Your task to perform on an android device: manage bookmarks in the chrome app Image 0: 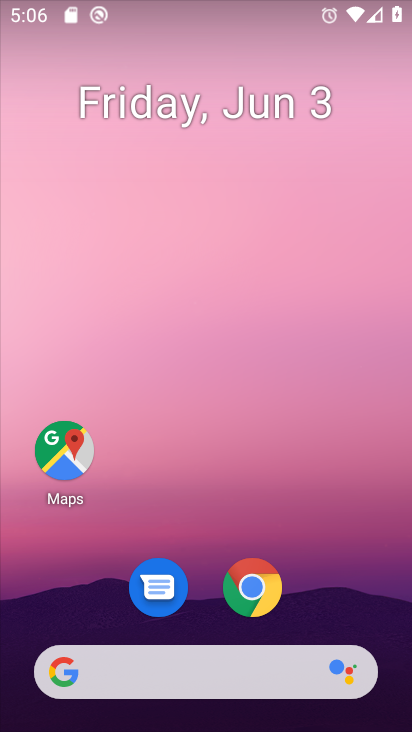
Step 0: click (252, 593)
Your task to perform on an android device: manage bookmarks in the chrome app Image 1: 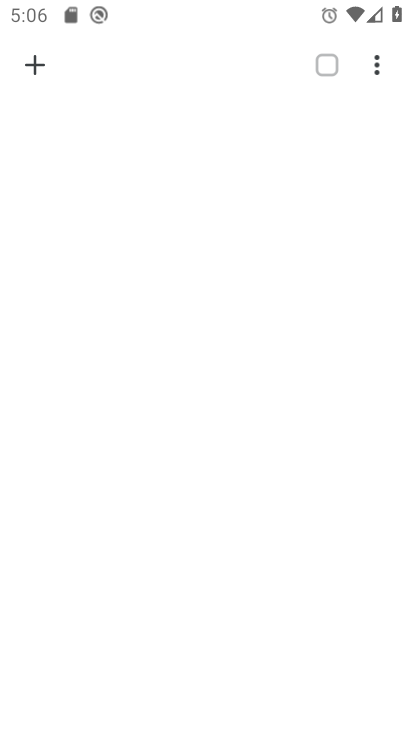
Step 1: click (381, 72)
Your task to perform on an android device: manage bookmarks in the chrome app Image 2: 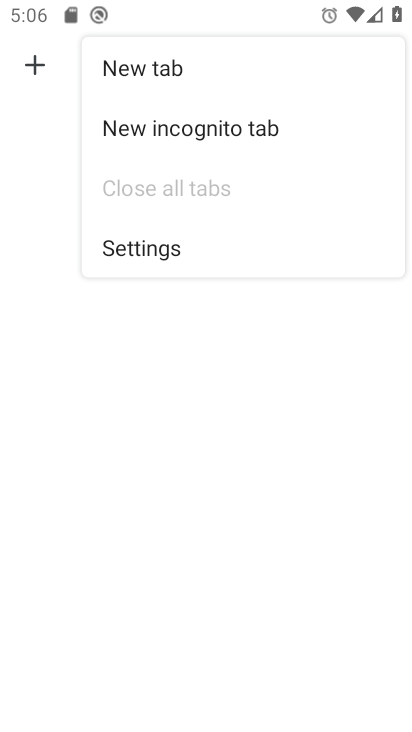
Step 2: click (167, 251)
Your task to perform on an android device: manage bookmarks in the chrome app Image 3: 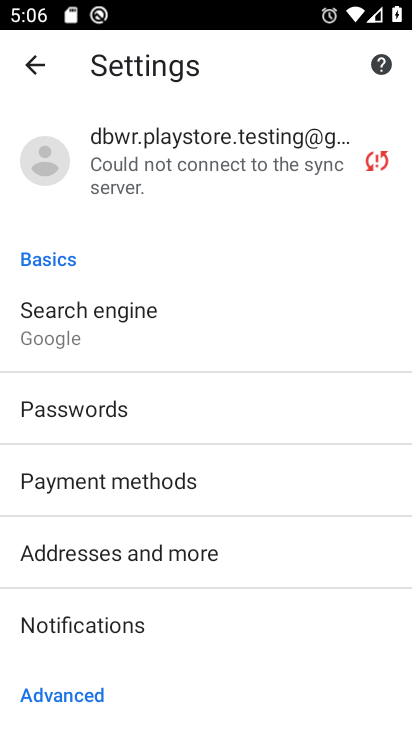
Step 3: click (30, 61)
Your task to perform on an android device: manage bookmarks in the chrome app Image 4: 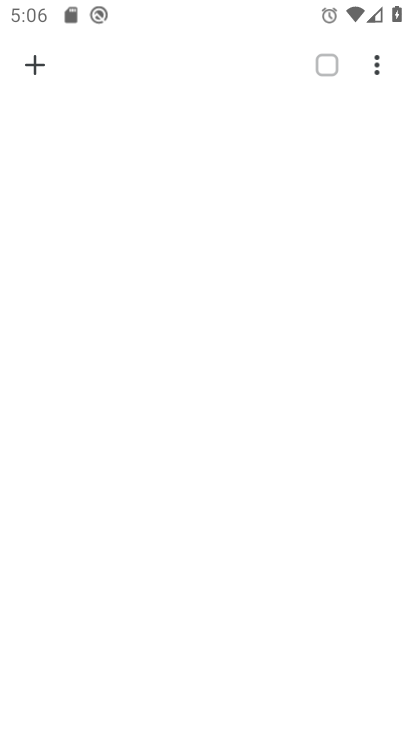
Step 4: click (25, 64)
Your task to perform on an android device: manage bookmarks in the chrome app Image 5: 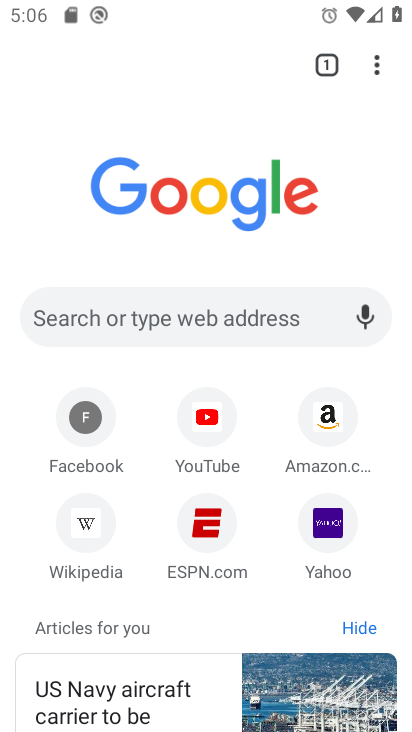
Step 5: click (376, 79)
Your task to perform on an android device: manage bookmarks in the chrome app Image 6: 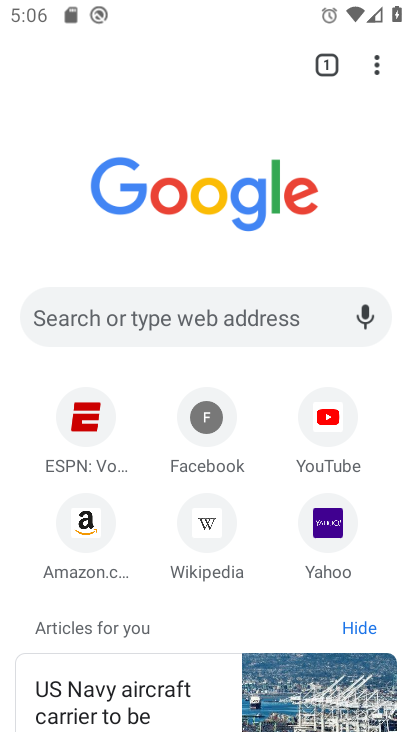
Step 6: click (377, 68)
Your task to perform on an android device: manage bookmarks in the chrome app Image 7: 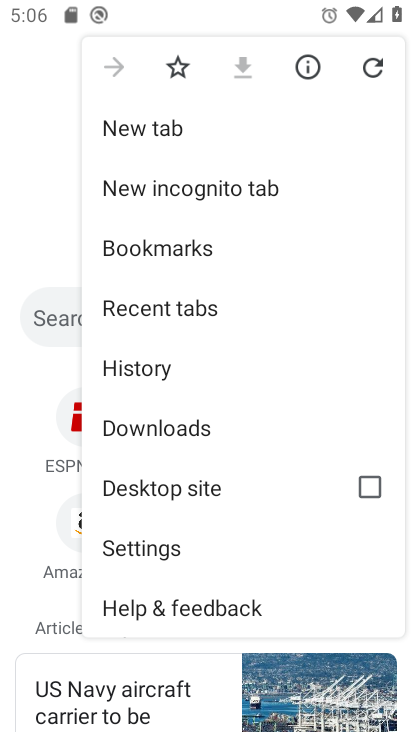
Step 7: click (188, 258)
Your task to perform on an android device: manage bookmarks in the chrome app Image 8: 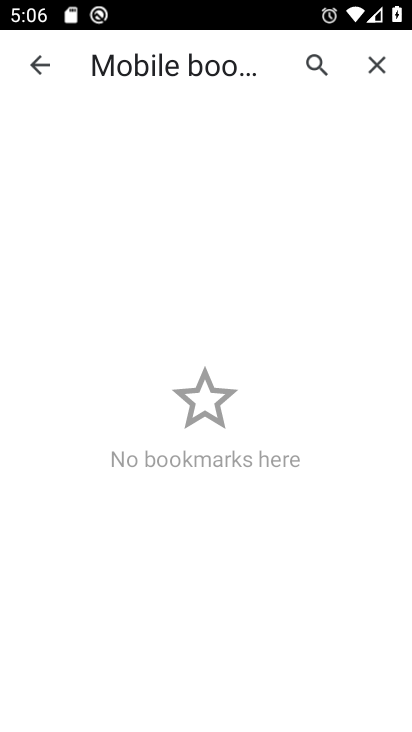
Step 8: task complete